Your task to perform on an android device: change notification settings in the gmail app Image 0: 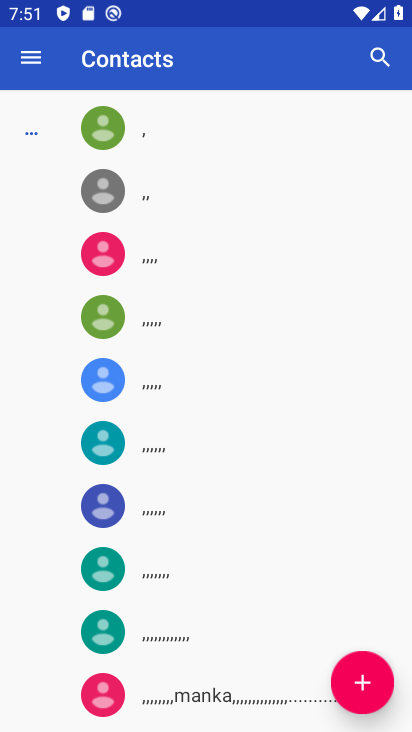
Step 0: press home button
Your task to perform on an android device: change notification settings in the gmail app Image 1: 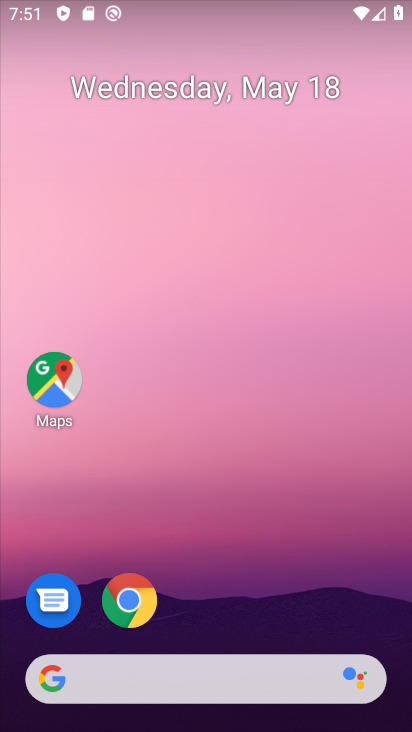
Step 1: drag from (238, 713) to (167, 226)
Your task to perform on an android device: change notification settings in the gmail app Image 2: 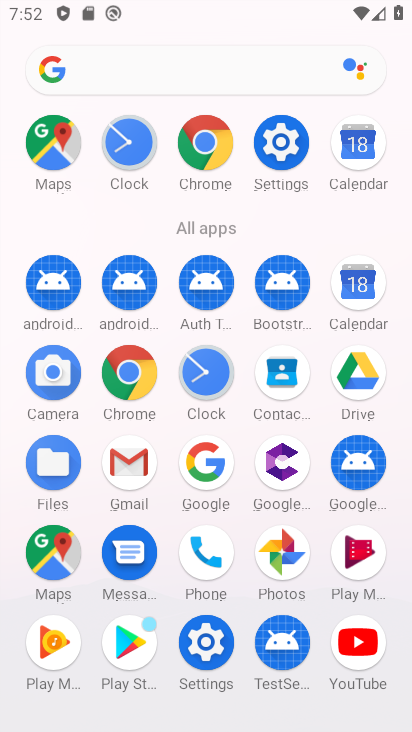
Step 2: click (133, 454)
Your task to perform on an android device: change notification settings in the gmail app Image 3: 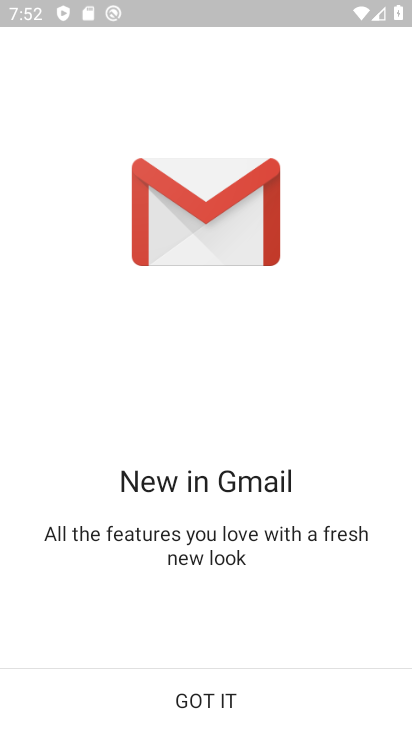
Step 3: click (217, 695)
Your task to perform on an android device: change notification settings in the gmail app Image 4: 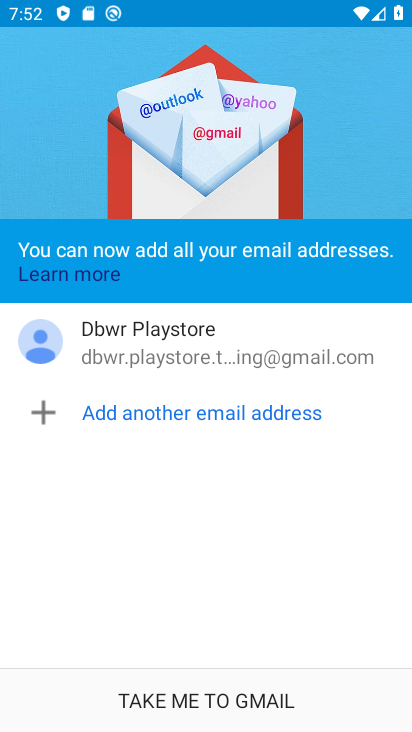
Step 4: click (189, 681)
Your task to perform on an android device: change notification settings in the gmail app Image 5: 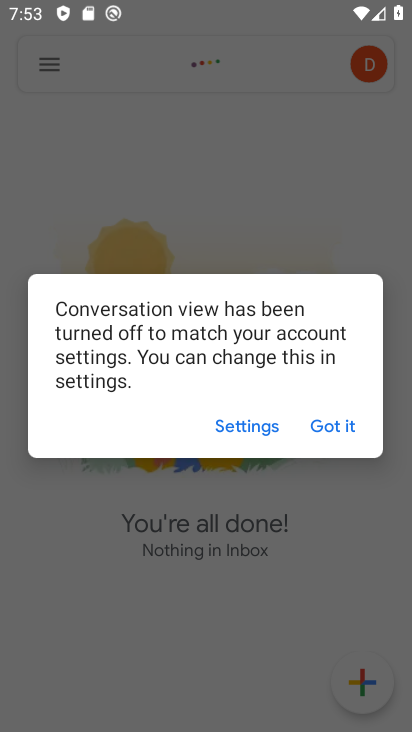
Step 5: click (359, 430)
Your task to perform on an android device: change notification settings in the gmail app Image 6: 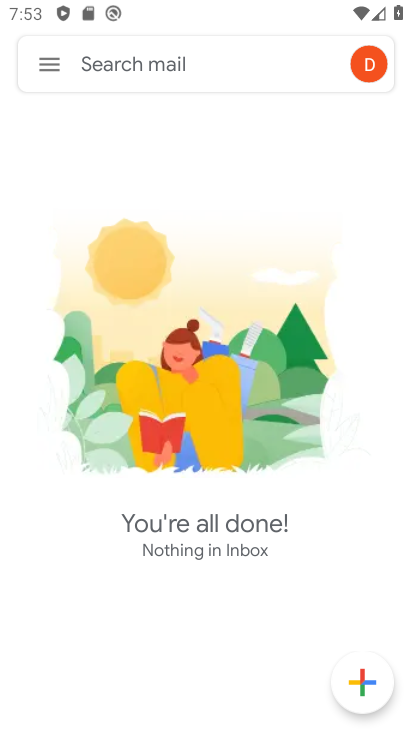
Step 6: click (40, 79)
Your task to perform on an android device: change notification settings in the gmail app Image 7: 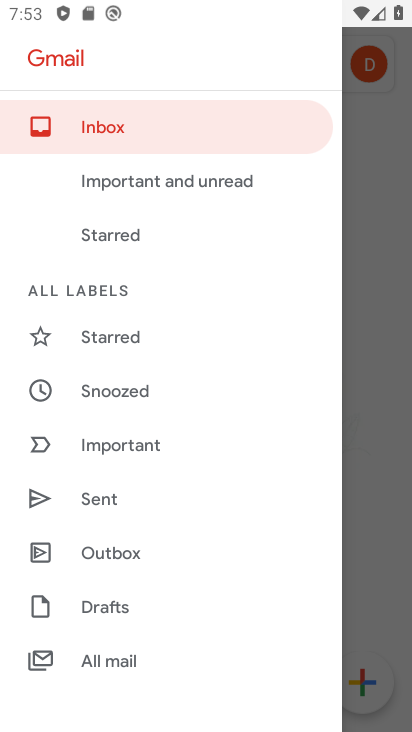
Step 7: drag from (152, 605) to (252, 234)
Your task to perform on an android device: change notification settings in the gmail app Image 8: 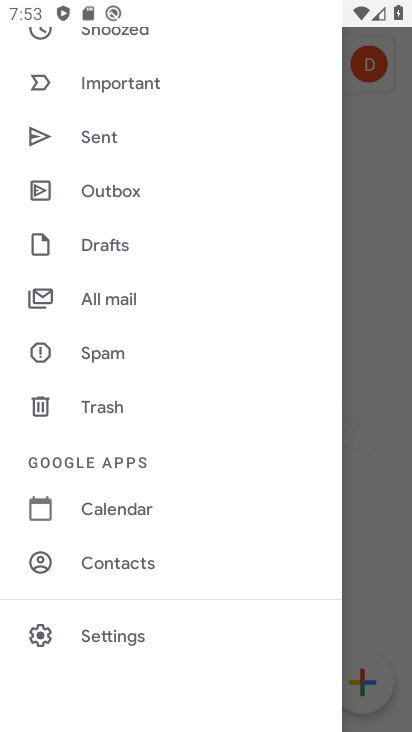
Step 8: click (113, 634)
Your task to perform on an android device: change notification settings in the gmail app Image 9: 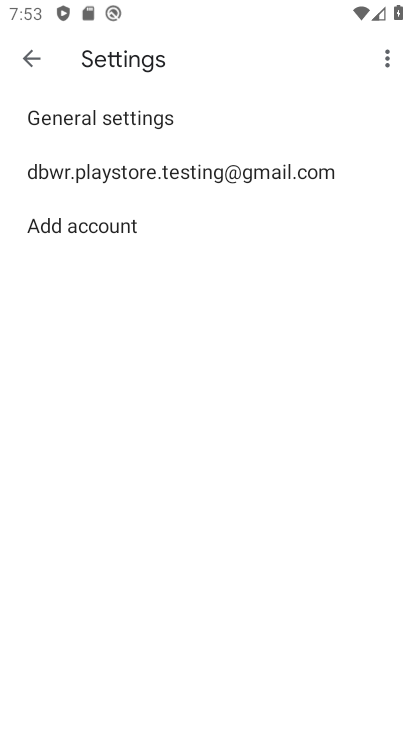
Step 9: click (134, 177)
Your task to perform on an android device: change notification settings in the gmail app Image 10: 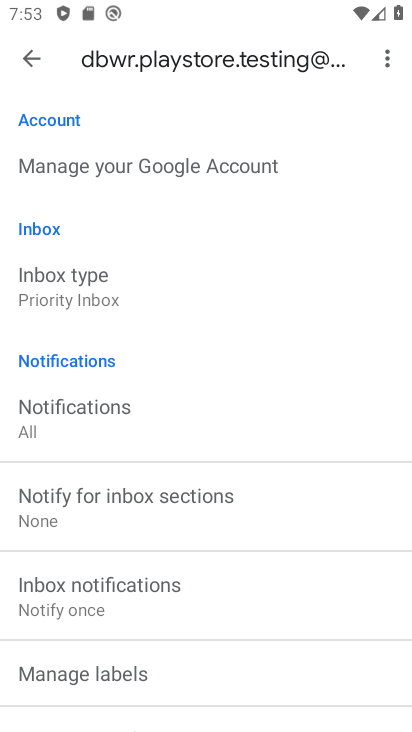
Step 10: drag from (153, 629) to (253, 309)
Your task to perform on an android device: change notification settings in the gmail app Image 11: 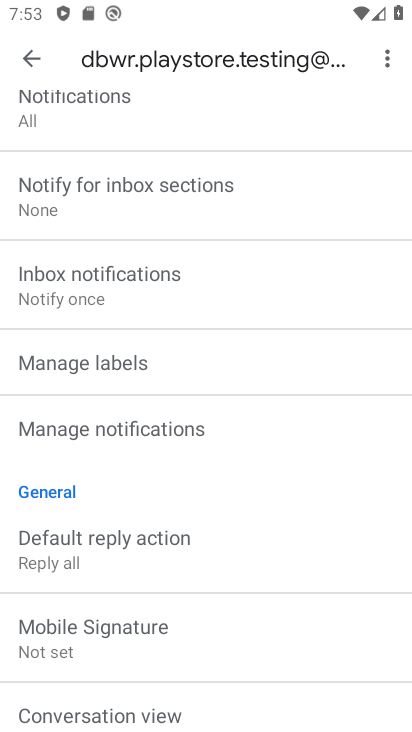
Step 11: click (94, 90)
Your task to perform on an android device: change notification settings in the gmail app Image 12: 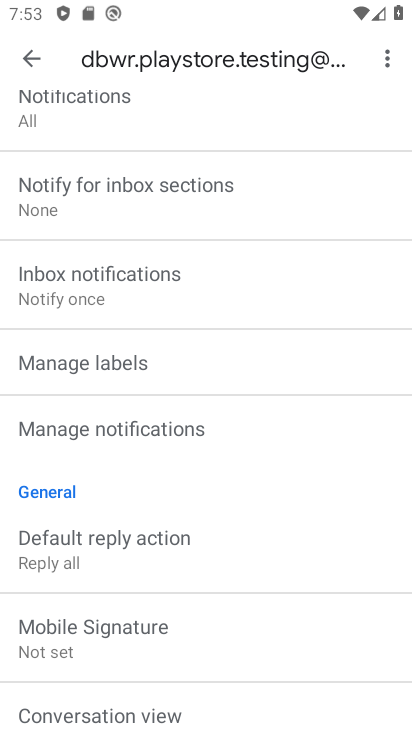
Step 12: click (81, 99)
Your task to perform on an android device: change notification settings in the gmail app Image 13: 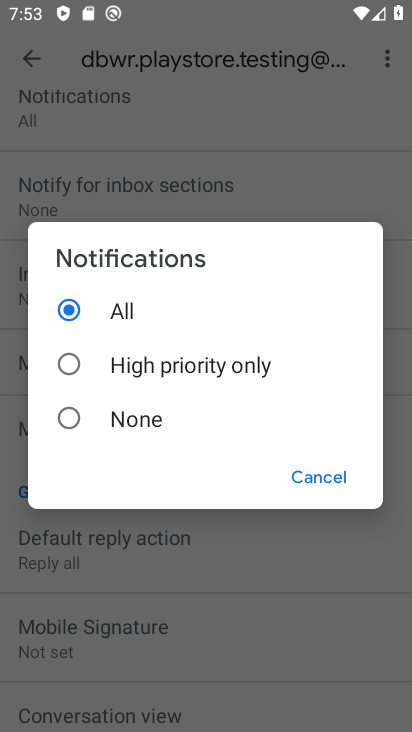
Step 13: click (119, 418)
Your task to perform on an android device: change notification settings in the gmail app Image 14: 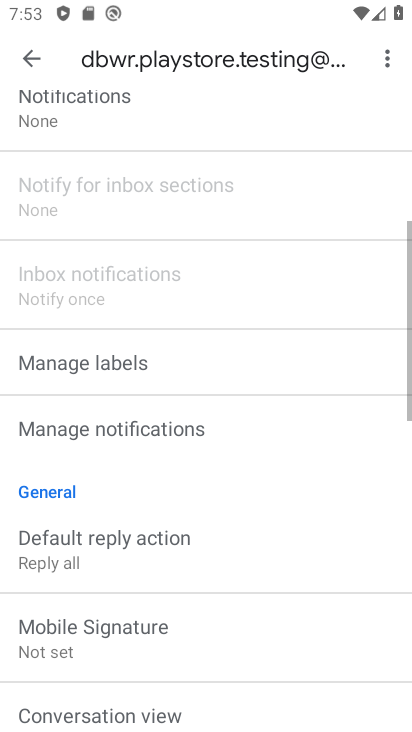
Step 14: task complete